Your task to perform on an android device: Search for "razer blade" on amazon, select the first entry, add it to the cart, then select checkout. Image 0: 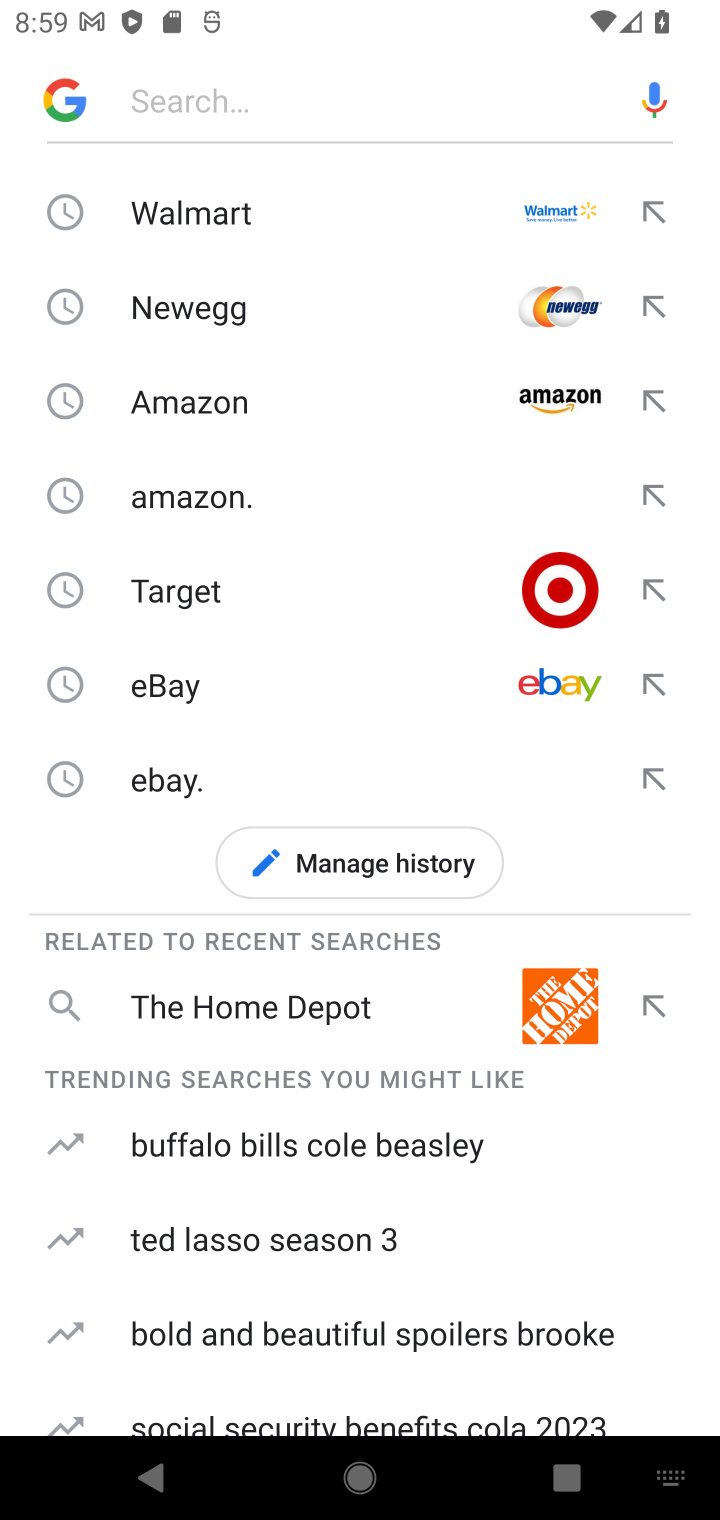
Step 0: press home button
Your task to perform on an android device: Search for "razer blade" on amazon, select the first entry, add it to the cart, then select checkout. Image 1: 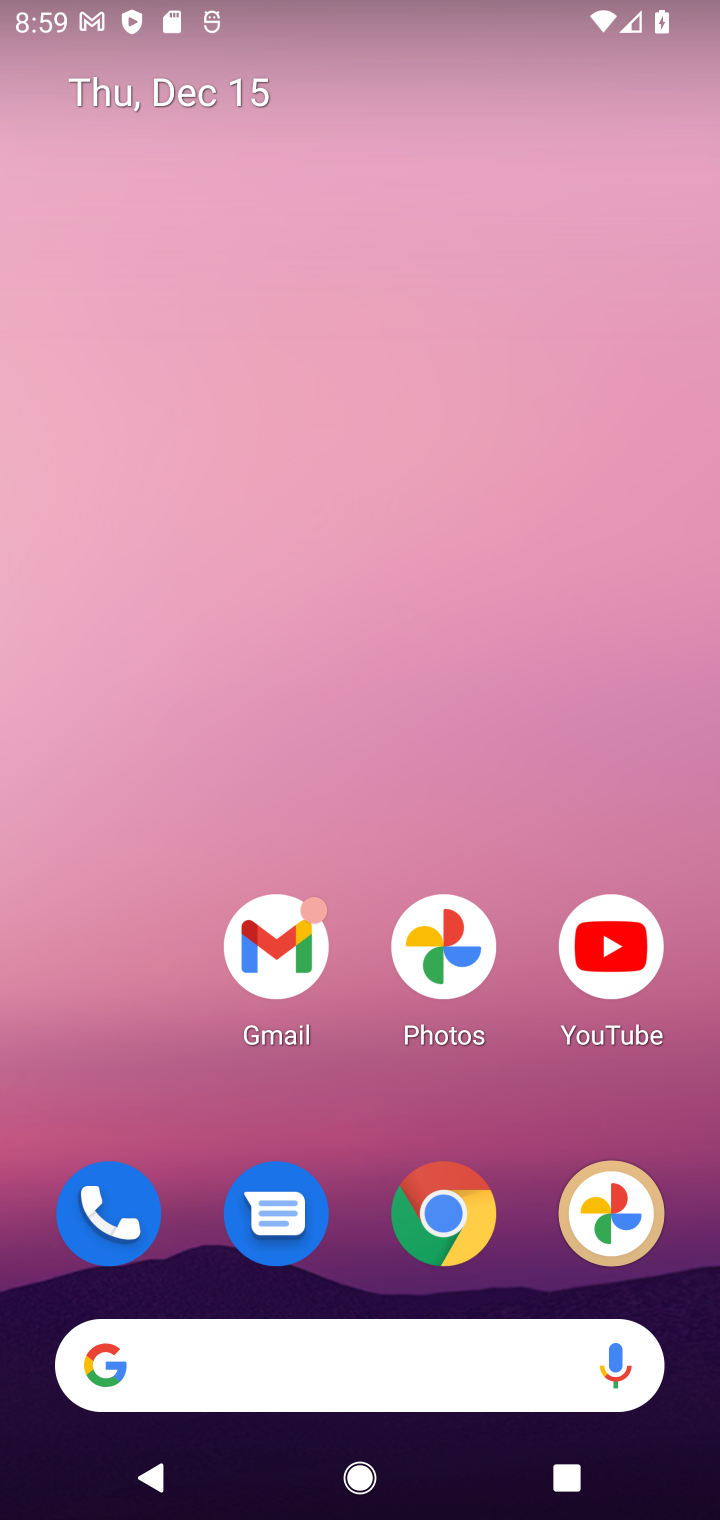
Step 1: drag from (329, 1331) to (298, 774)
Your task to perform on an android device: Search for "razer blade" on amazon, select the first entry, add it to the cart, then select checkout. Image 2: 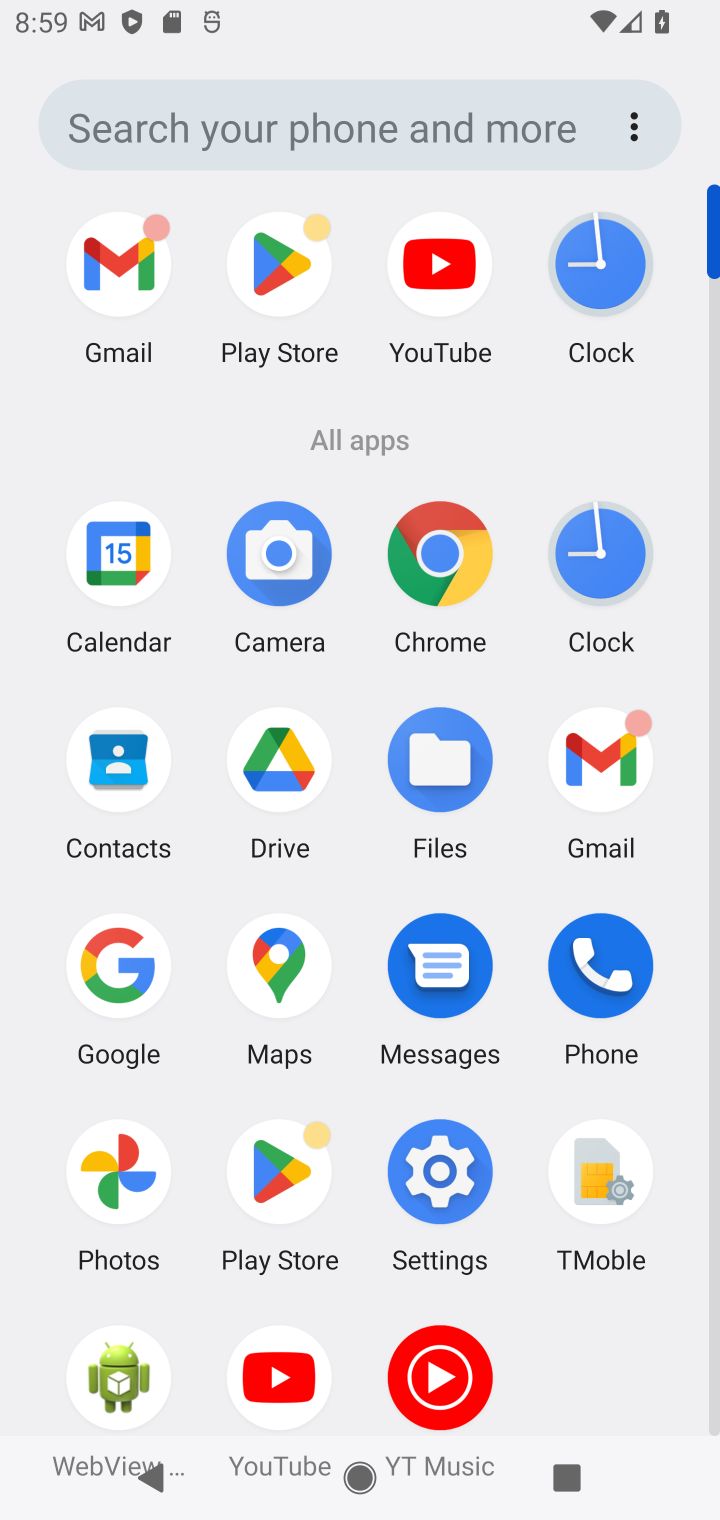
Step 2: click (118, 970)
Your task to perform on an android device: Search for "razer blade" on amazon, select the first entry, add it to the cart, then select checkout. Image 3: 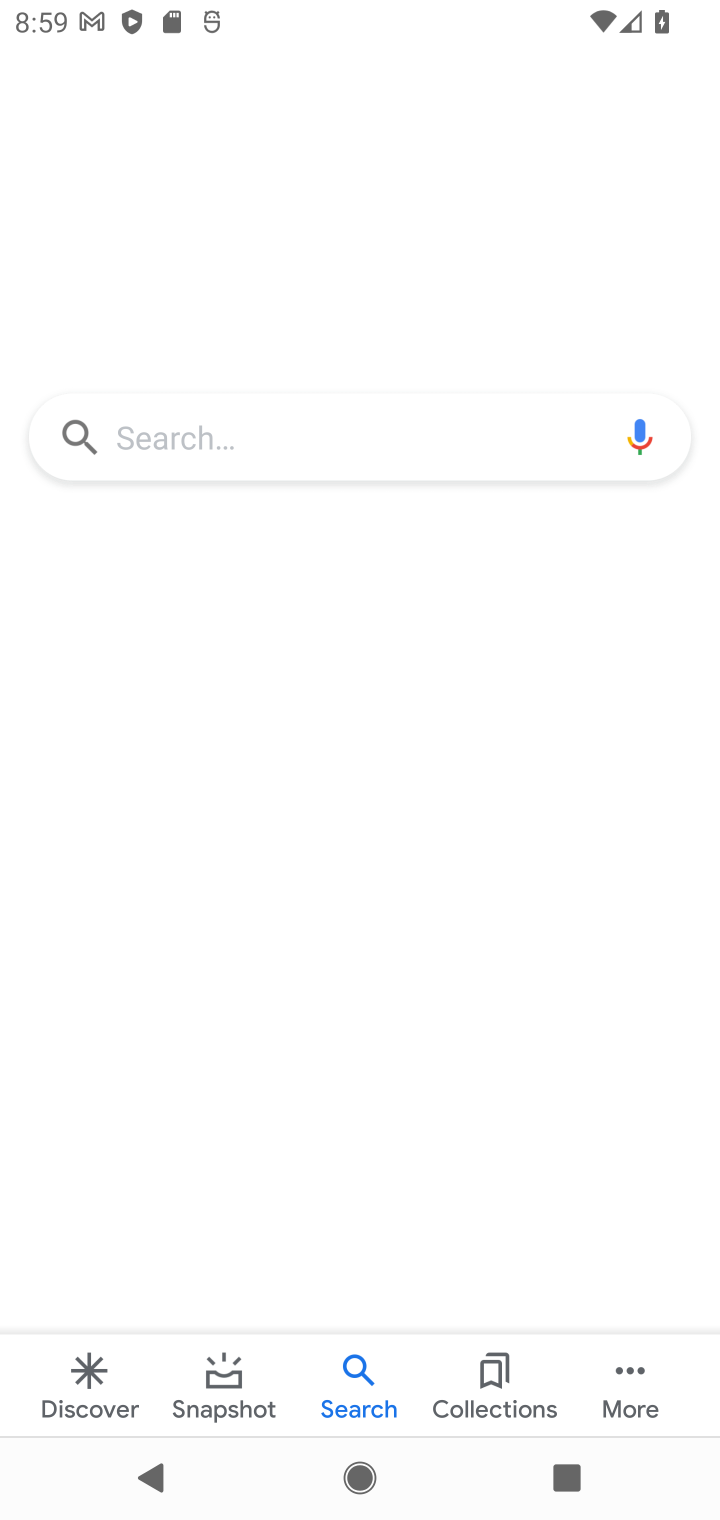
Step 3: click (296, 438)
Your task to perform on an android device: Search for "razer blade" on amazon, select the first entry, add it to the cart, then select checkout. Image 4: 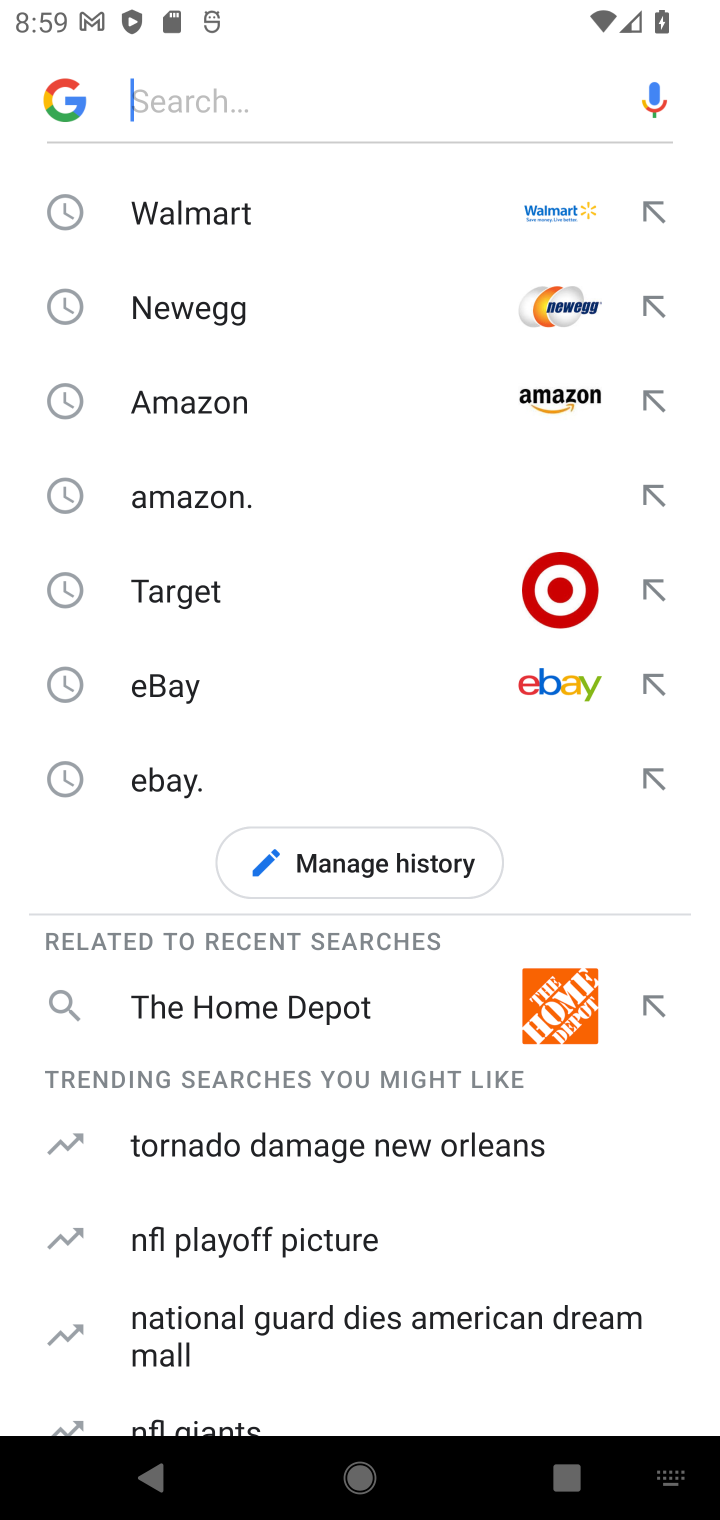
Step 4: click (211, 401)
Your task to perform on an android device: Search for "razer blade" on amazon, select the first entry, add it to the cart, then select checkout. Image 5: 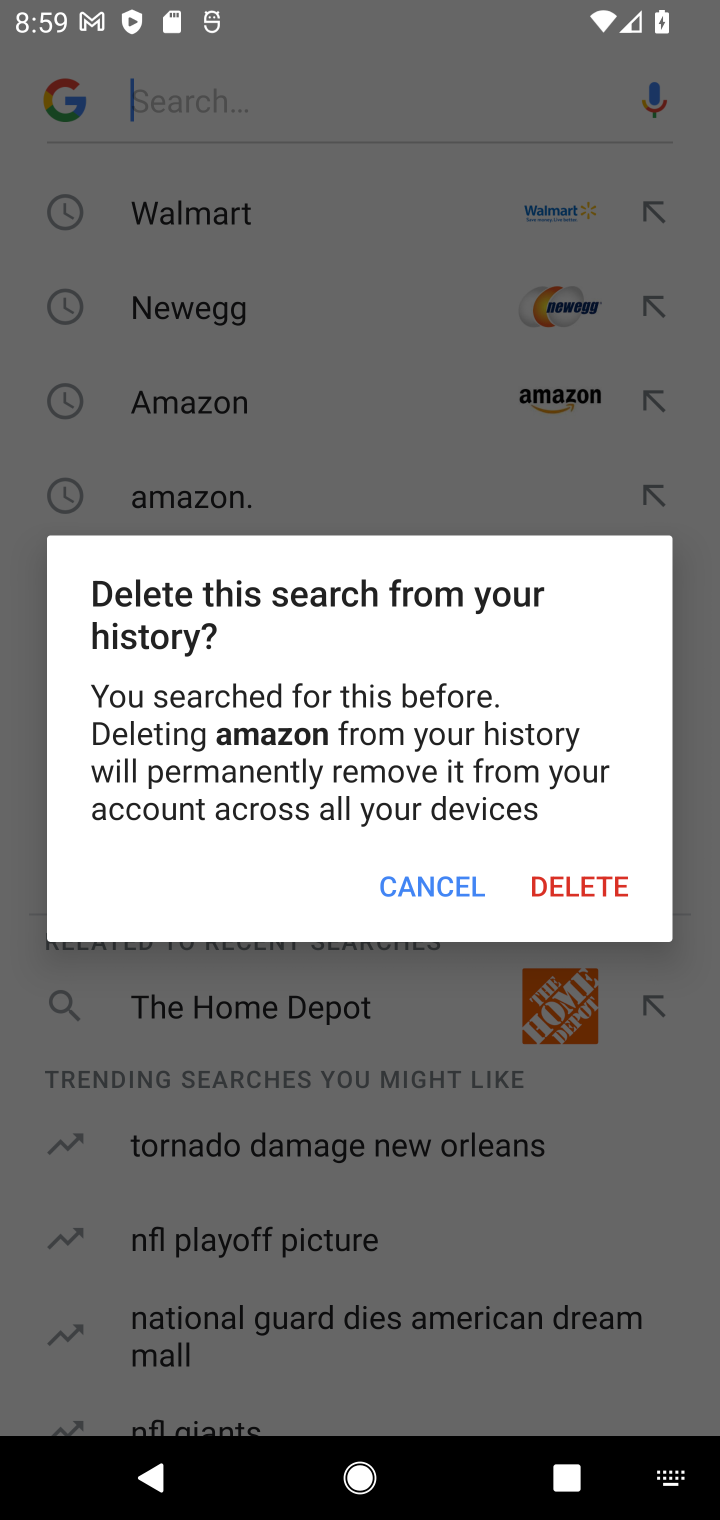
Step 5: click (421, 887)
Your task to perform on an android device: Search for "razer blade" on amazon, select the first entry, add it to the cart, then select checkout. Image 6: 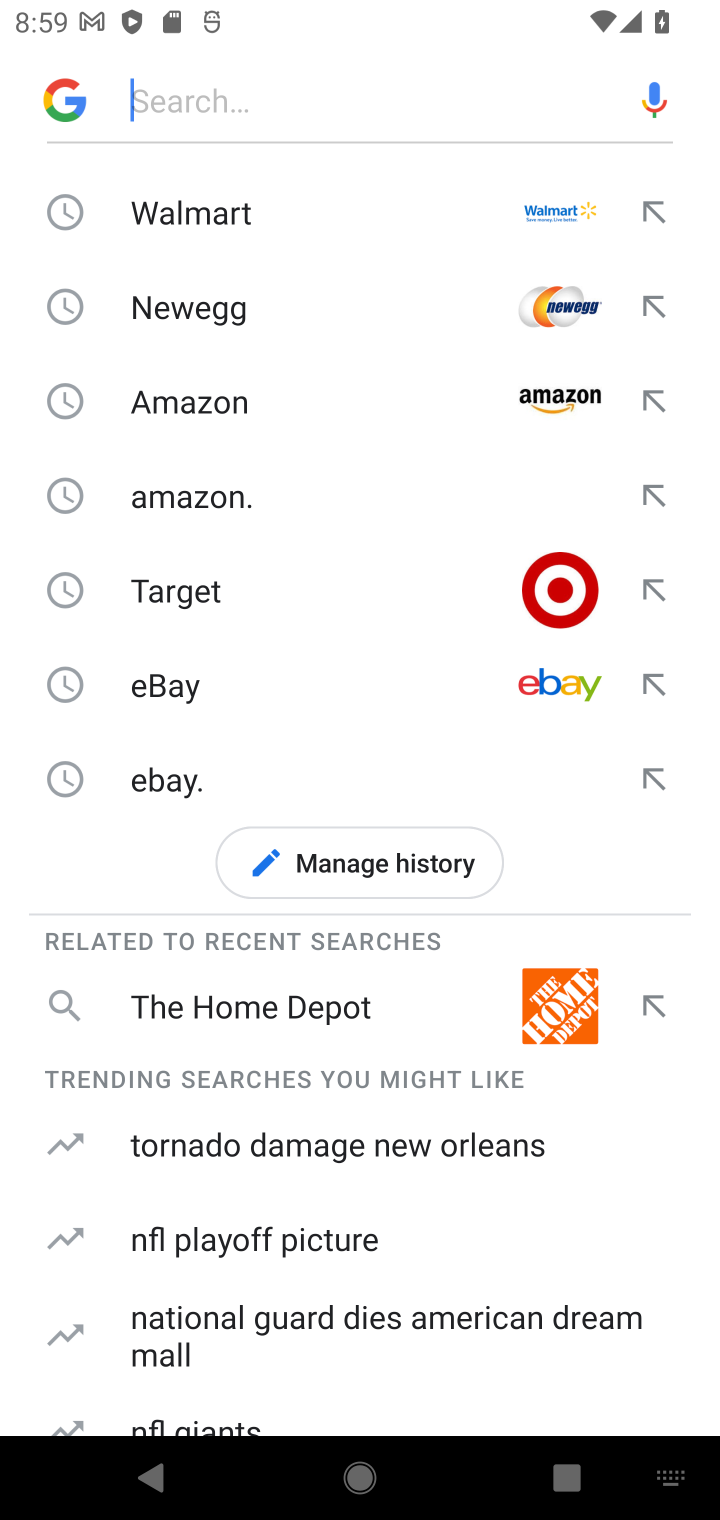
Step 6: click (582, 384)
Your task to perform on an android device: Search for "razer blade" on amazon, select the first entry, add it to the cart, then select checkout. Image 7: 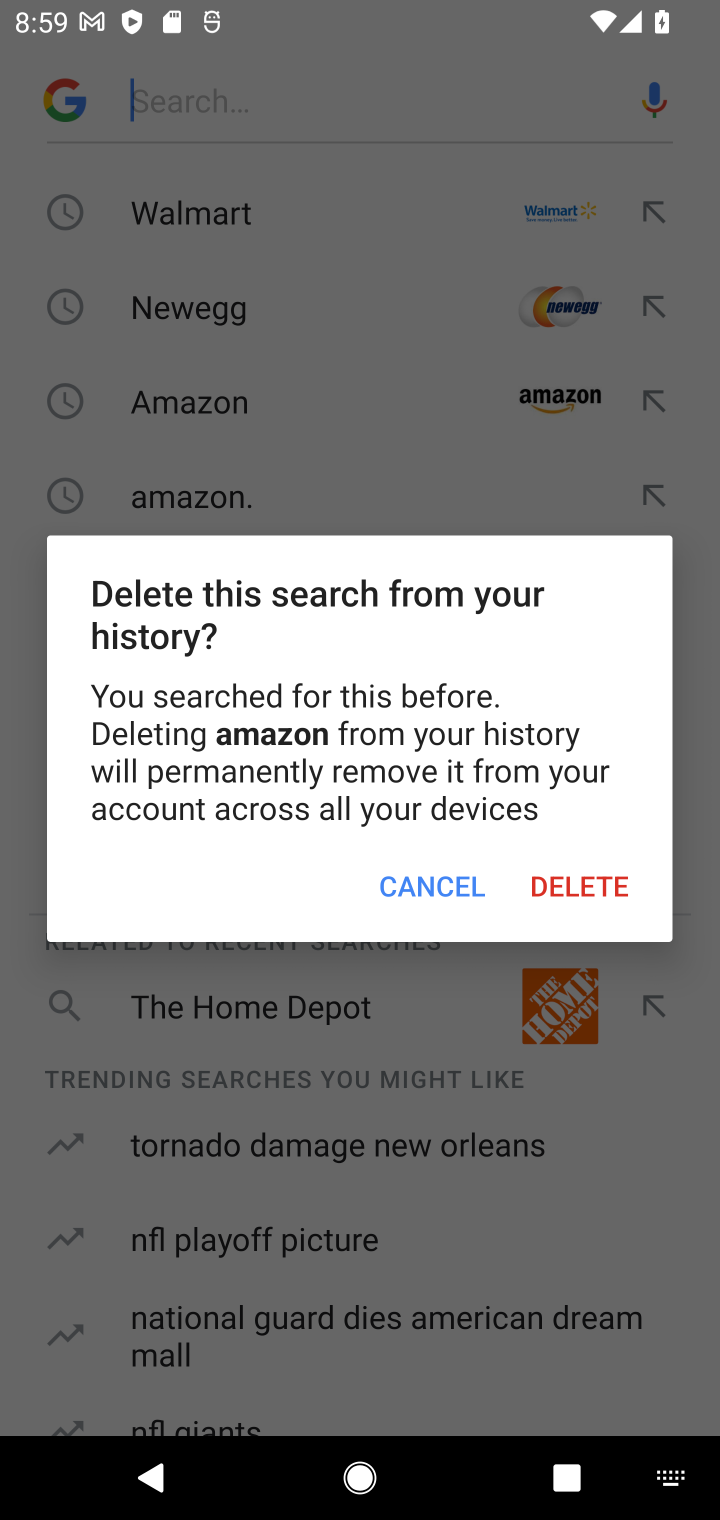
Step 7: click (399, 892)
Your task to perform on an android device: Search for "razer blade" on amazon, select the first entry, add it to the cart, then select checkout. Image 8: 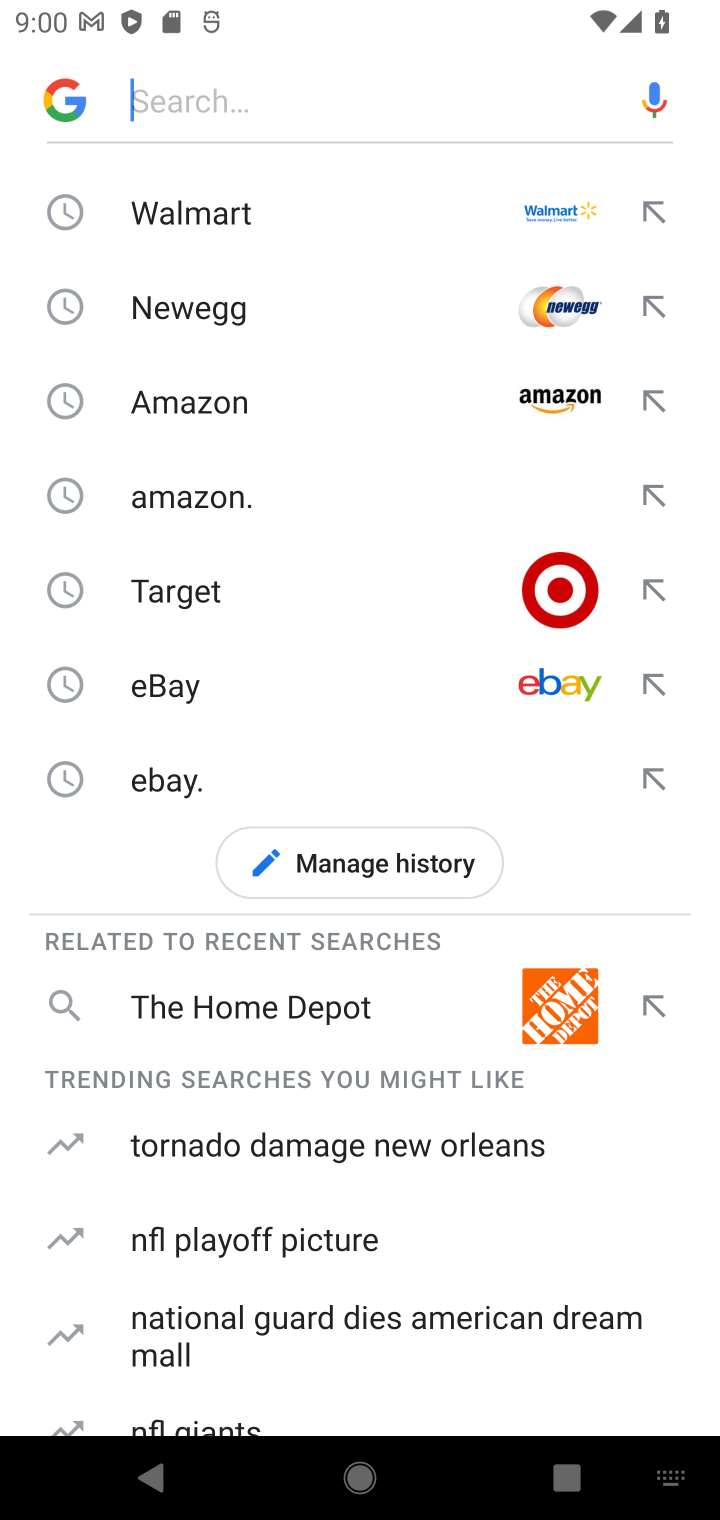
Step 8: click (660, 405)
Your task to perform on an android device: Search for "razer blade" on amazon, select the first entry, add it to the cart, then select checkout. Image 9: 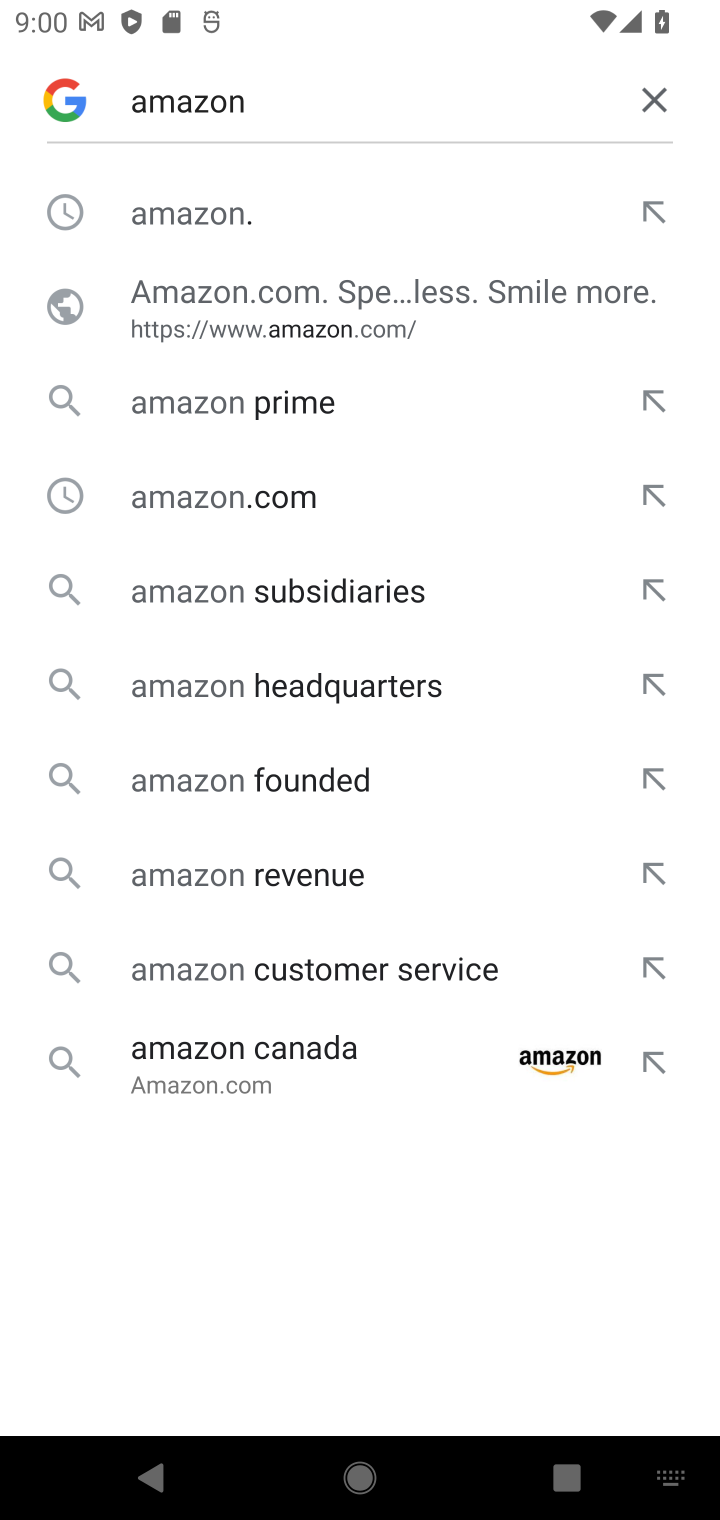
Step 9: click (232, 309)
Your task to perform on an android device: Search for "razer blade" on amazon, select the first entry, add it to the cart, then select checkout. Image 10: 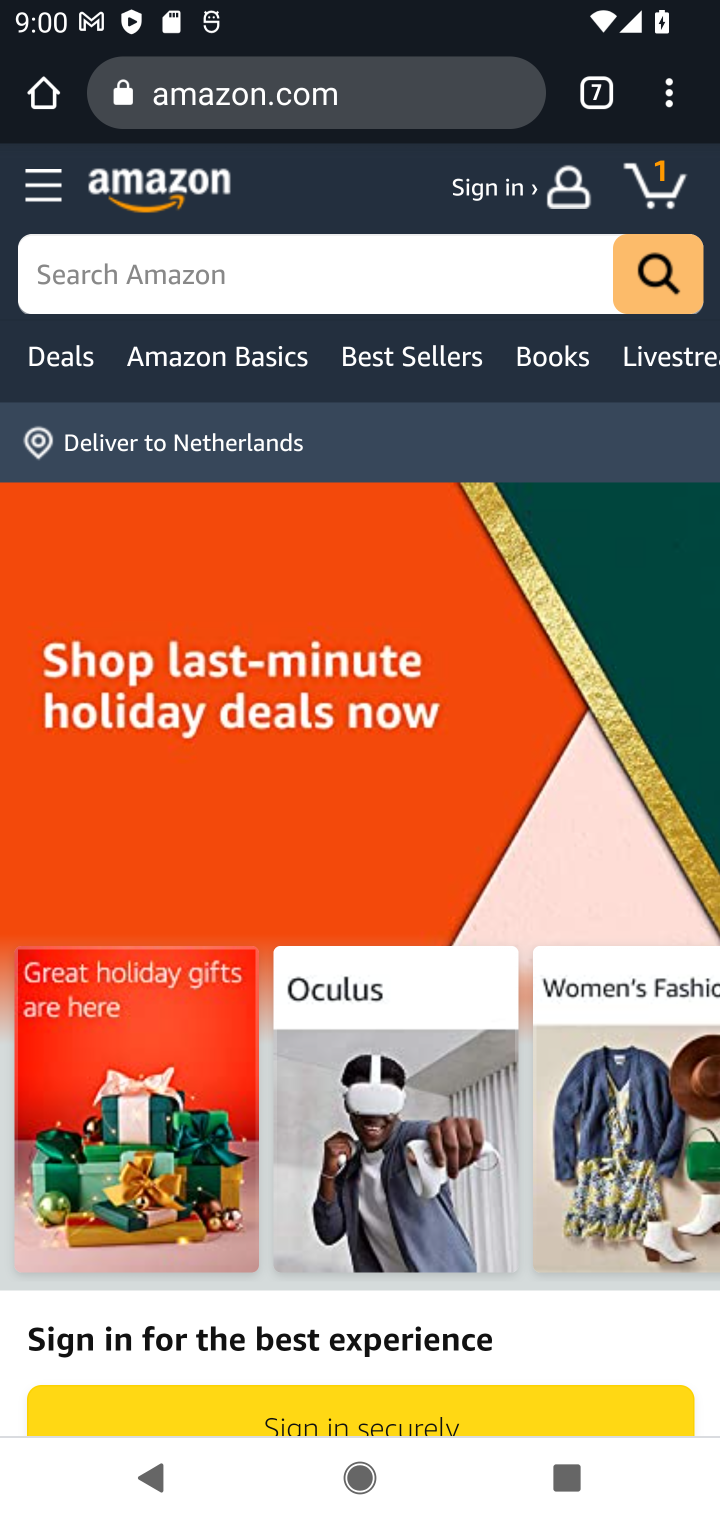
Step 10: click (272, 273)
Your task to perform on an android device: Search for "razer blade" on amazon, select the first entry, add it to the cart, then select checkout. Image 11: 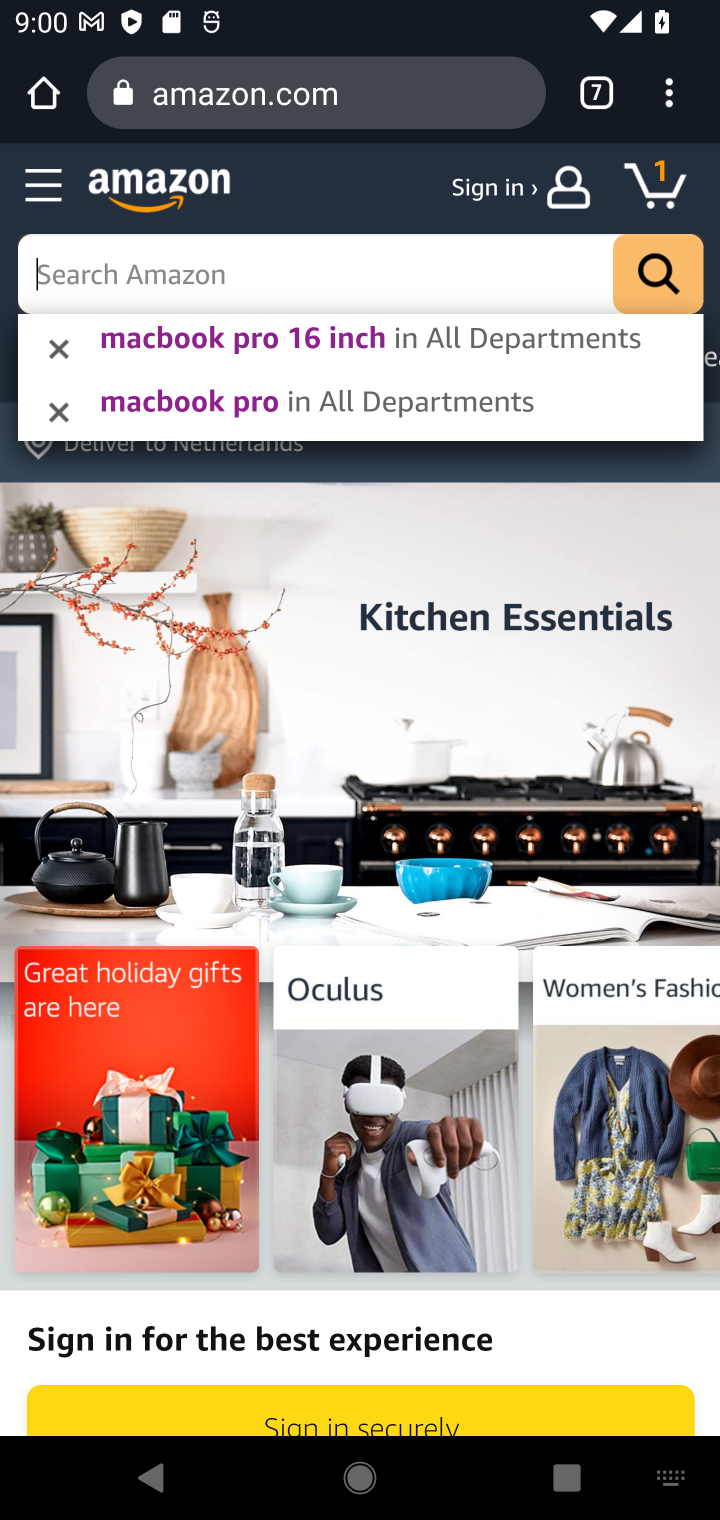
Step 11: type "razer blade"
Your task to perform on an android device: Search for "razer blade" on amazon, select the first entry, add it to the cart, then select checkout. Image 12: 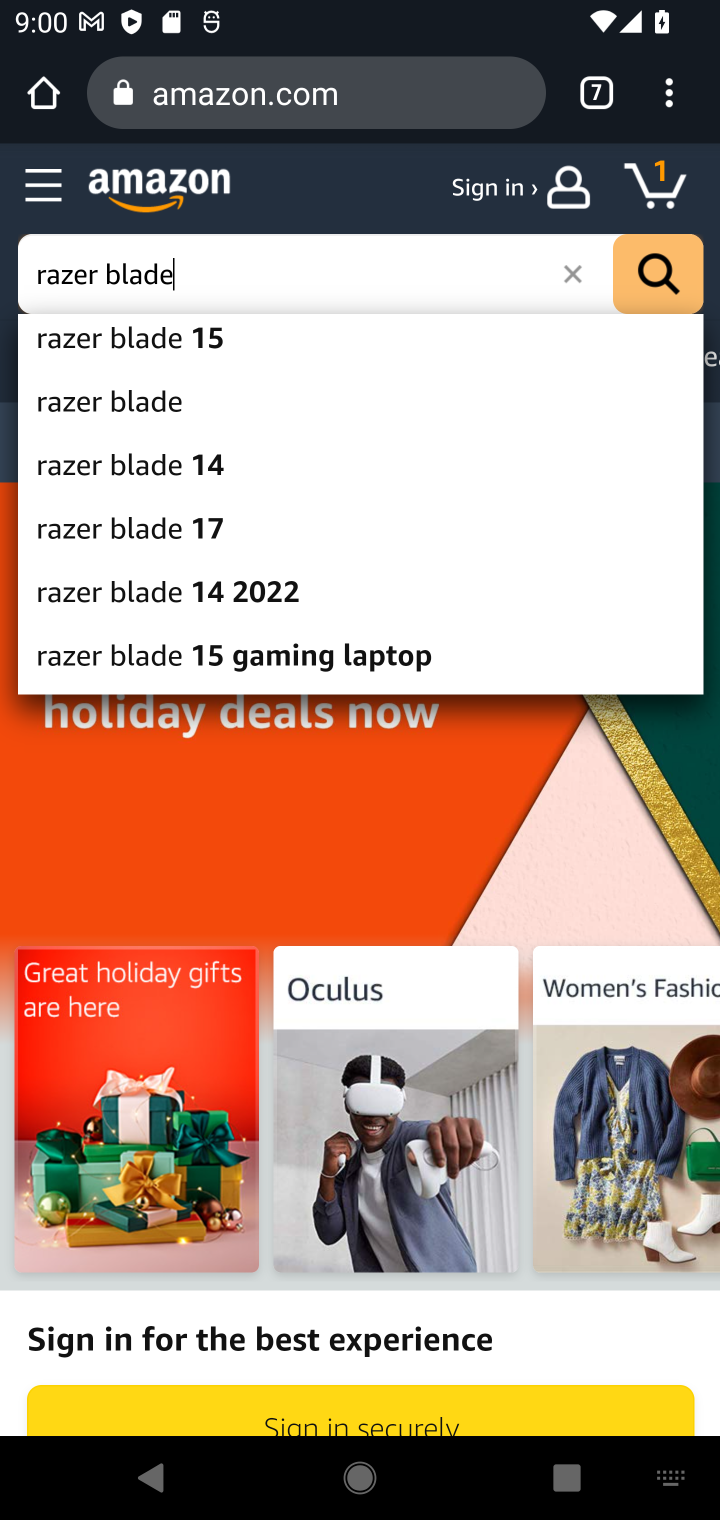
Step 12: click (141, 405)
Your task to perform on an android device: Search for "razer blade" on amazon, select the first entry, add it to the cart, then select checkout. Image 13: 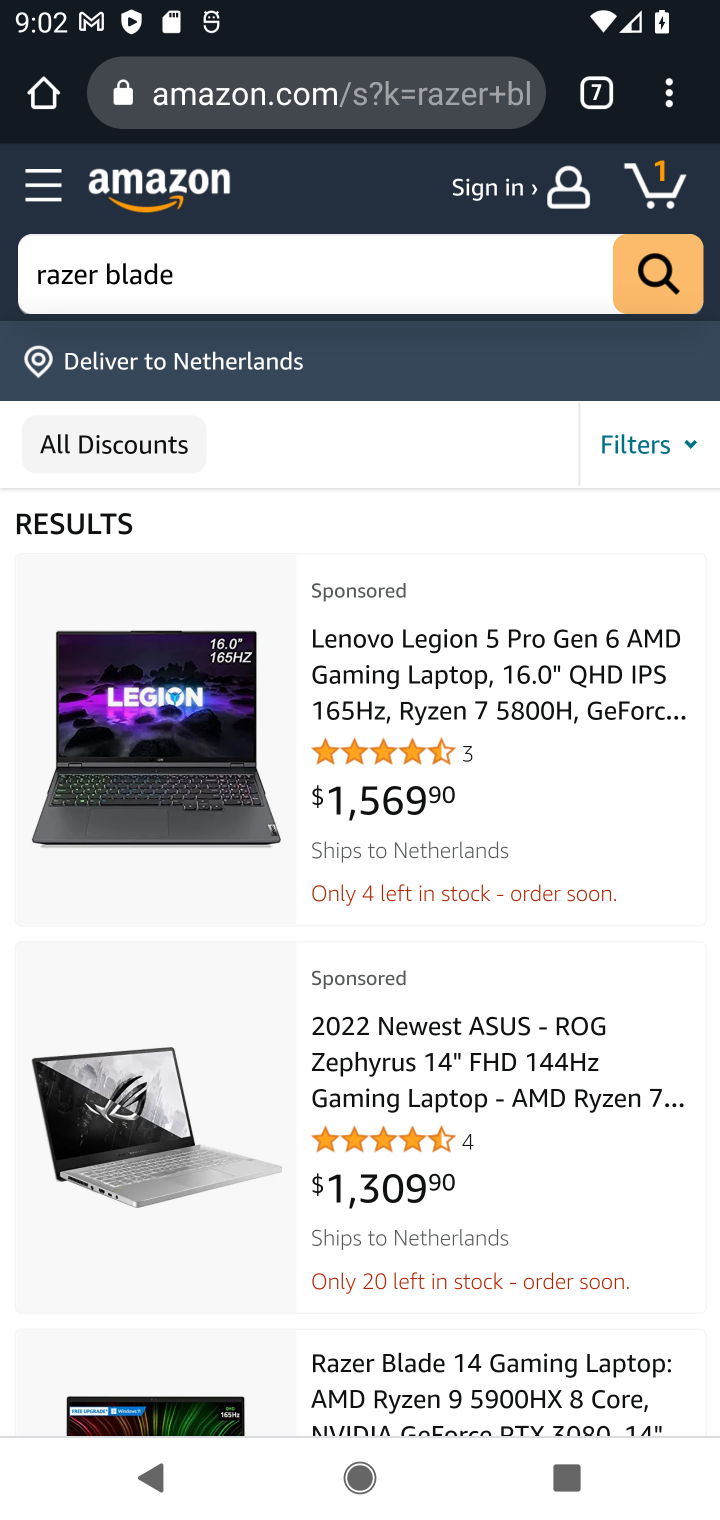
Step 13: click (436, 711)
Your task to perform on an android device: Search for "razer blade" on amazon, select the first entry, add it to the cart, then select checkout. Image 14: 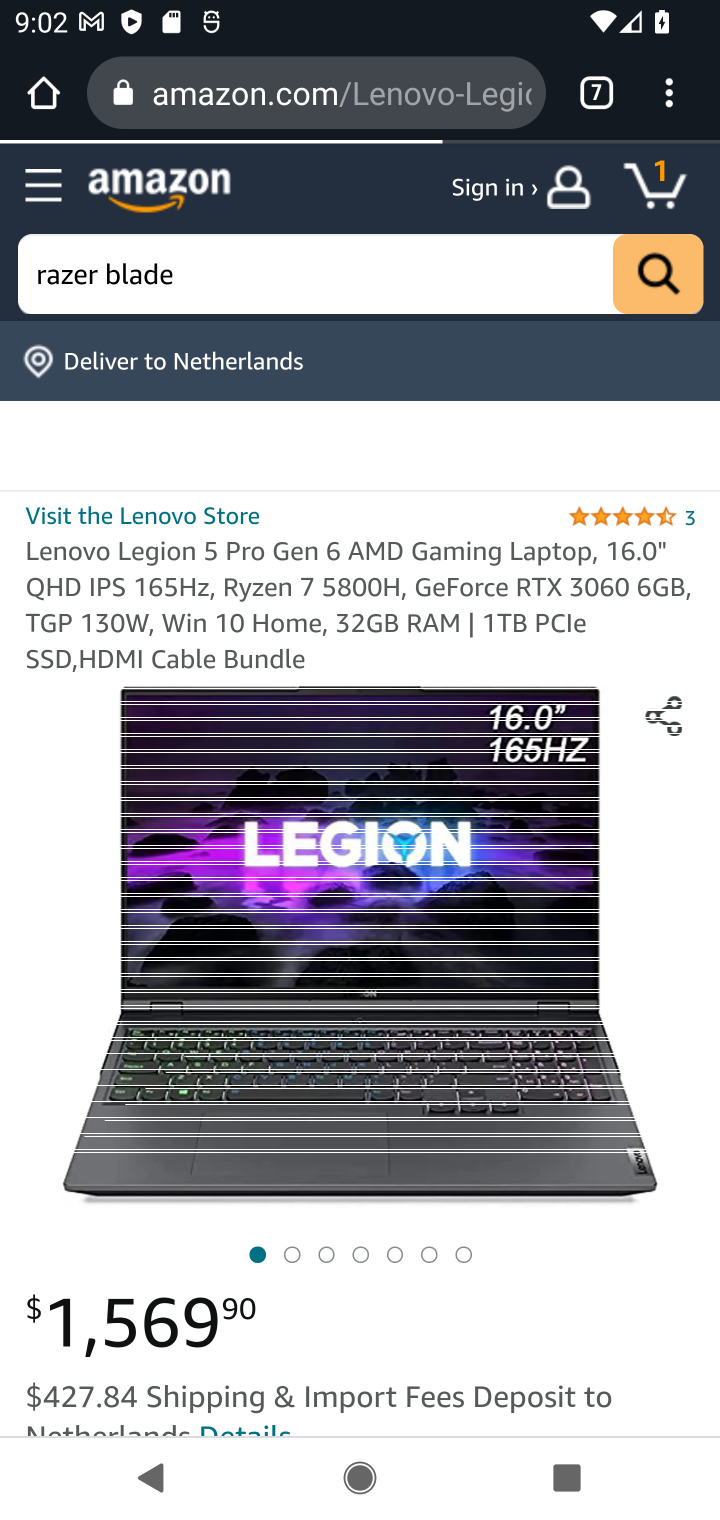
Step 14: drag from (694, 1016) to (692, 797)
Your task to perform on an android device: Search for "razer blade" on amazon, select the first entry, add it to the cart, then select checkout. Image 15: 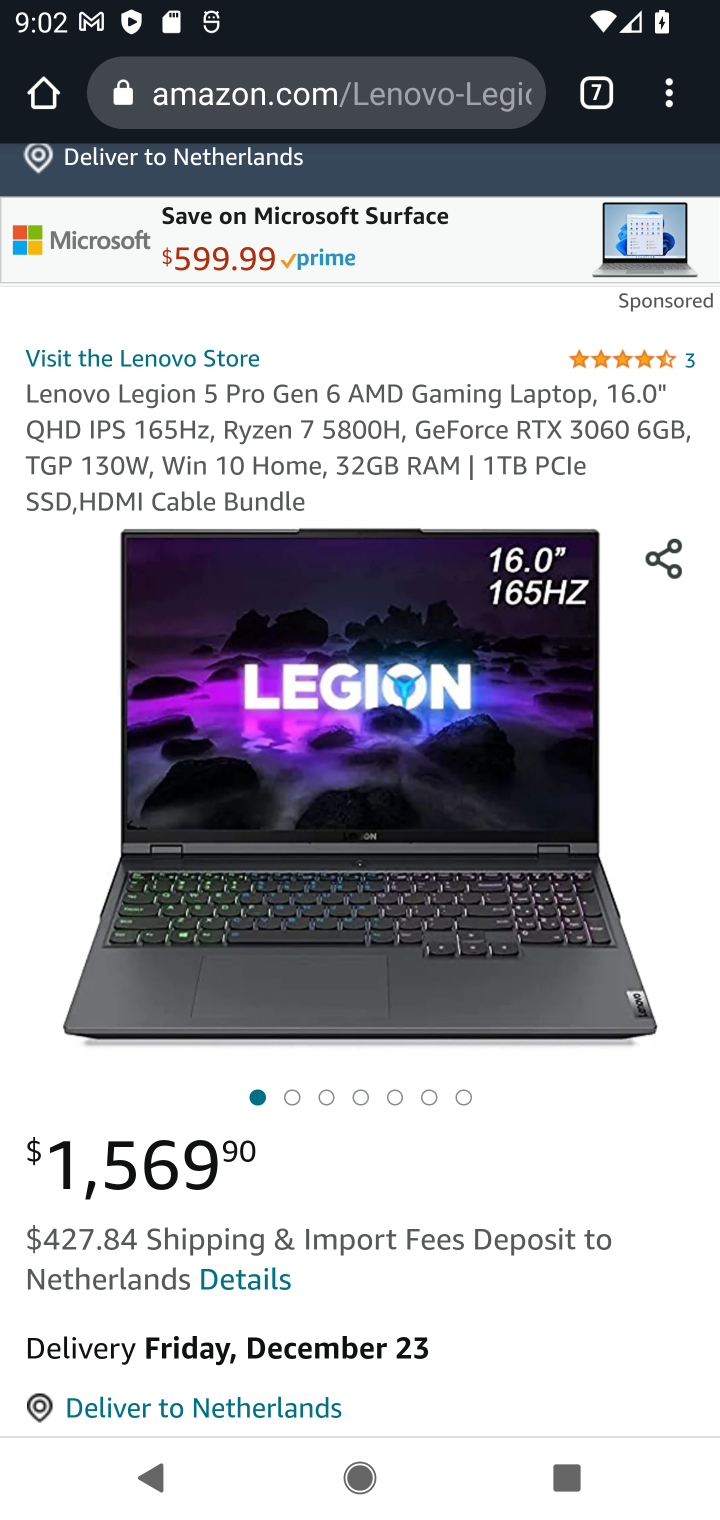
Step 15: drag from (434, 1172) to (441, 492)
Your task to perform on an android device: Search for "razer blade" on amazon, select the first entry, add it to the cart, then select checkout. Image 16: 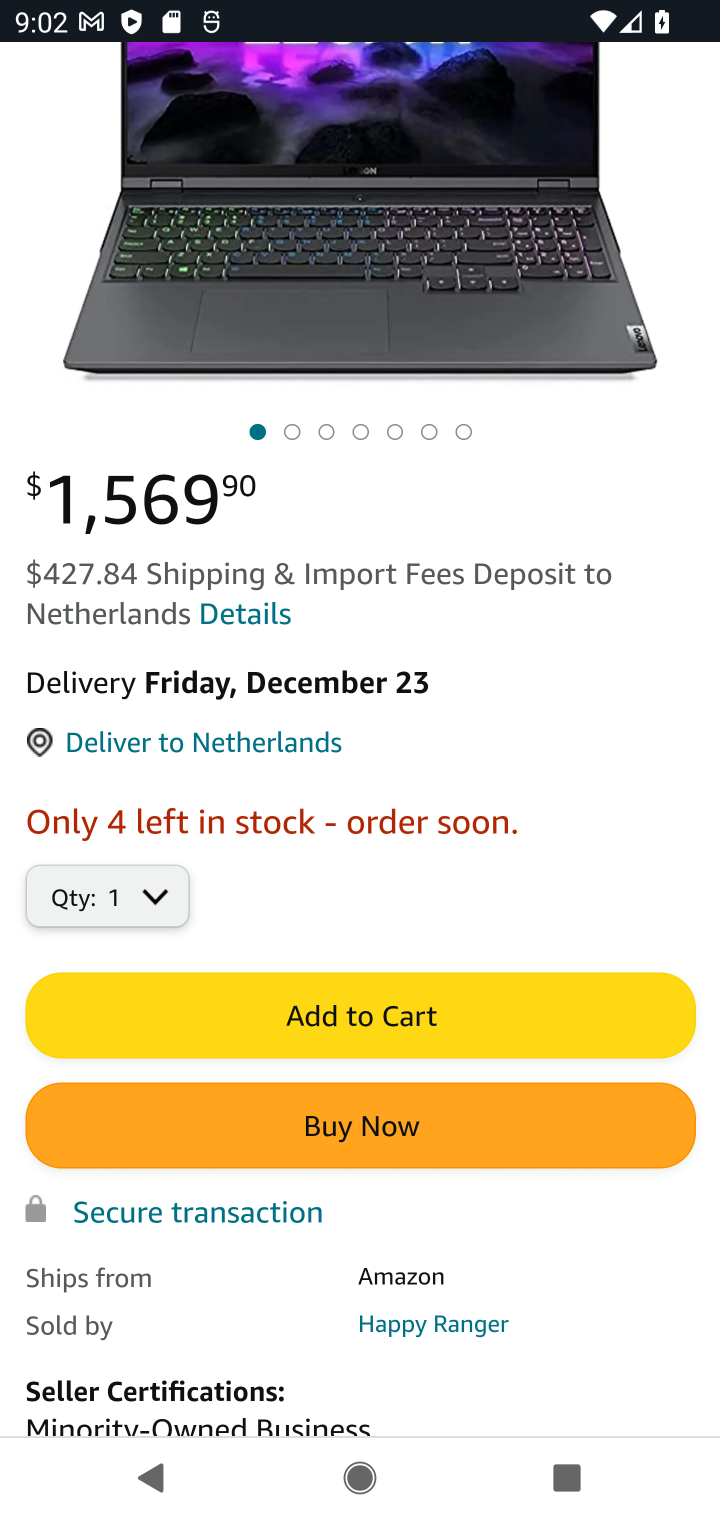
Step 16: click (326, 1027)
Your task to perform on an android device: Search for "razer blade" on amazon, select the first entry, add it to the cart, then select checkout. Image 17: 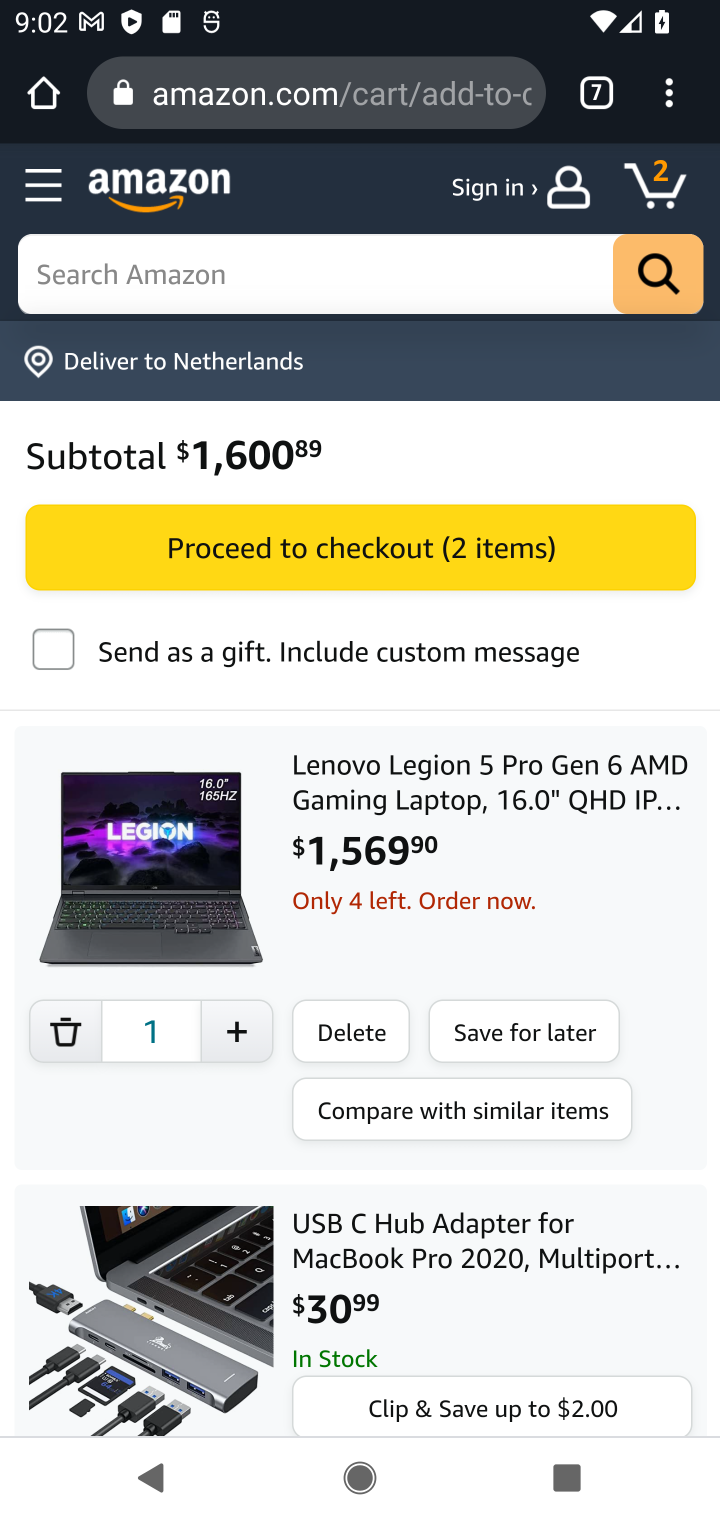
Step 17: click (433, 562)
Your task to perform on an android device: Search for "razer blade" on amazon, select the first entry, add it to the cart, then select checkout. Image 18: 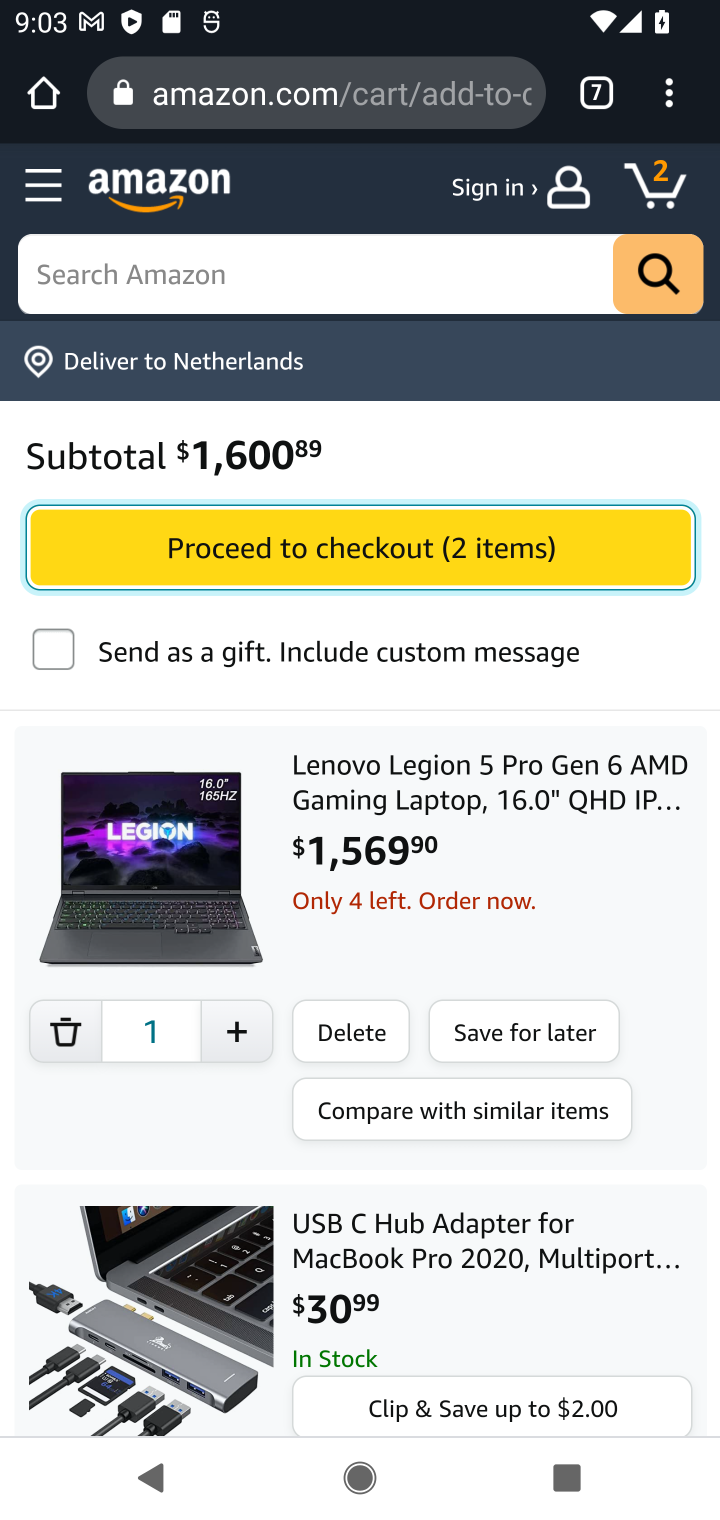
Step 18: task complete